Your task to perform on an android device: Open ESPN.com Image 0: 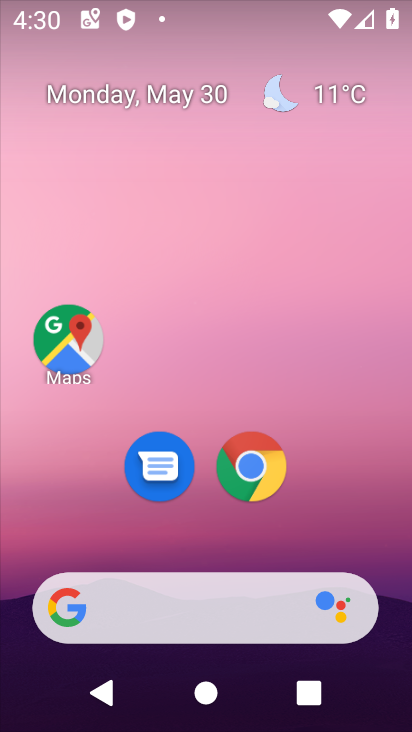
Step 0: click (271, 468)
Your task to perform on an android device: Open ESPN.com Image 1: 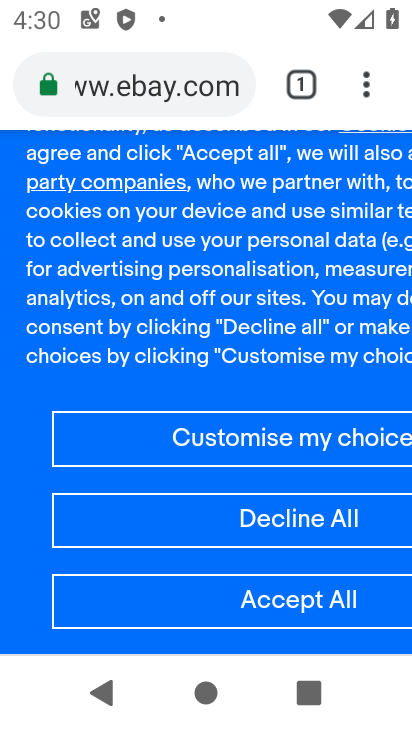
Step 1: click (173, 80)
Your task to perform on an android device: Open ESPN.com Image 2: 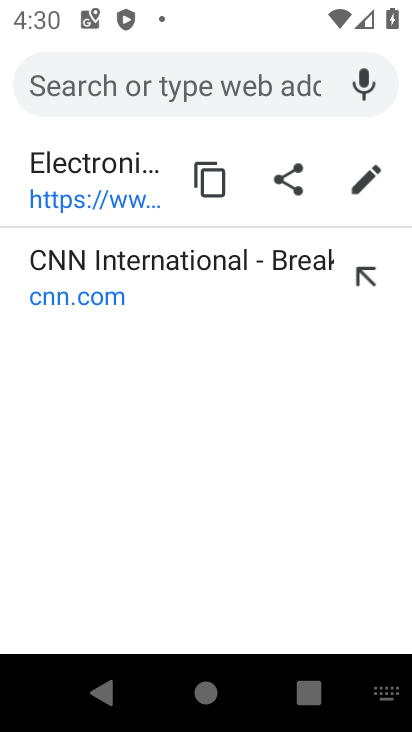
Step 2: type "espn.com"
Your task to perform on an android device: Open ESPN.com Image 3: 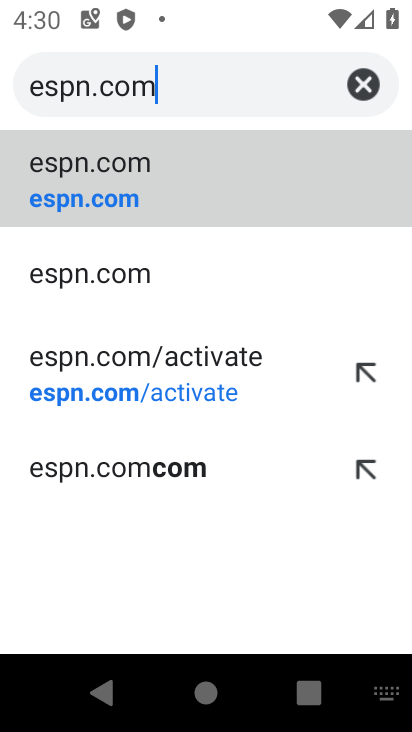
Step 3: click (118, 202)
Your task to perform on an android device: Open ESPN.com Image 4: 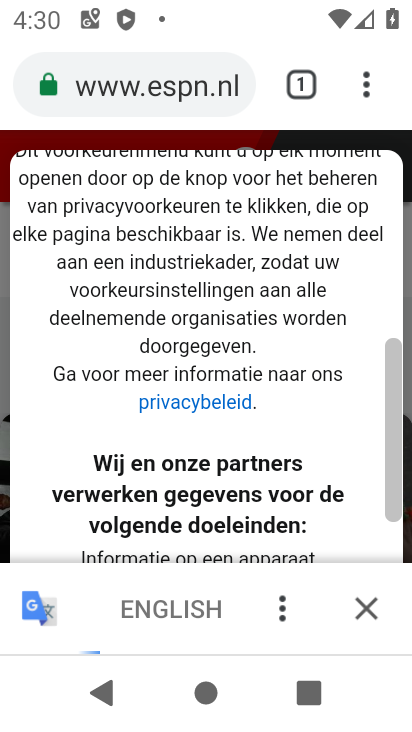
Step 4: task complete